Your task to perform on an android device: read, delete, or share a saved page in the chrome app Image 0: 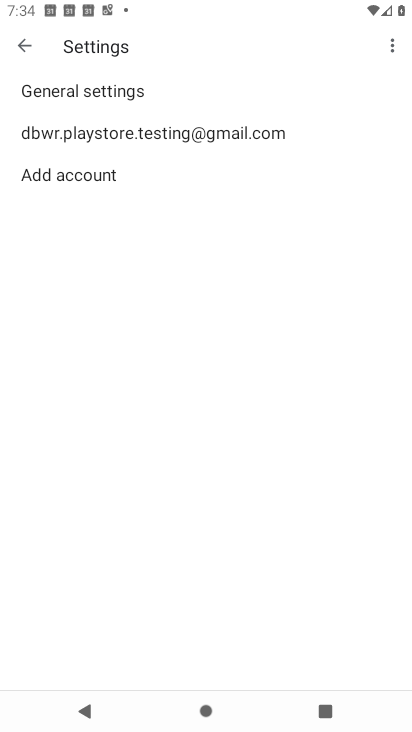
Step 0: press home button
Your task to perform on an android device: read, delete, or share a saved page in the chrome app Image 1: 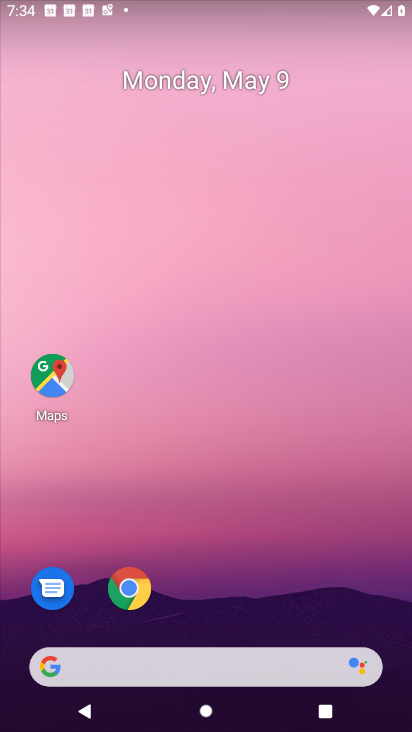
Step 1: click (121, 593)
Your task to perform on an android device: read, delete, or share a saved page in the chrome app Image 2: 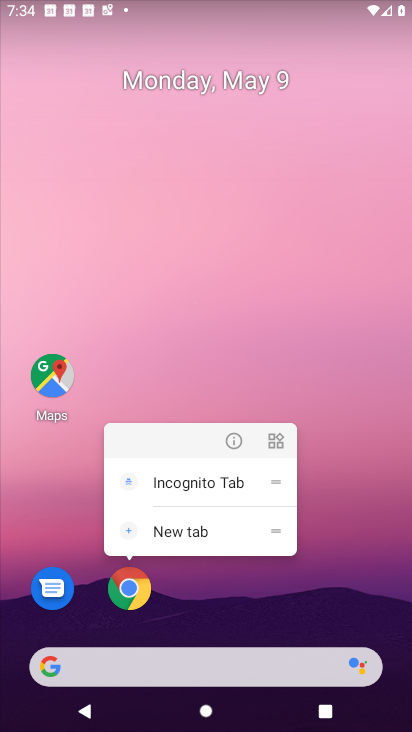
Step 2: click (126, 597)
Your task to perform on an android device: read, delete, or share a saved page in the chrome app Image 3: 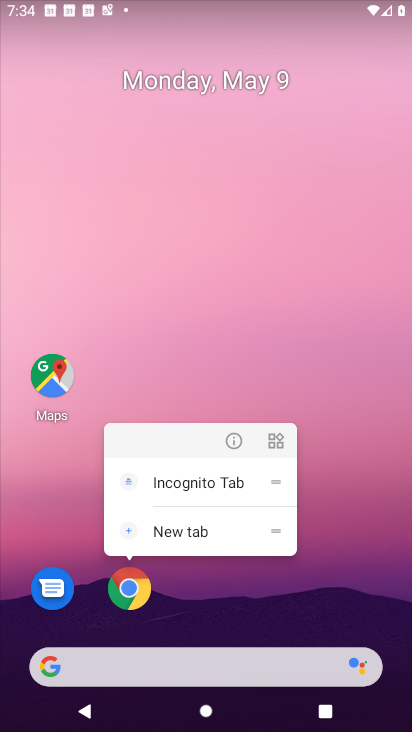
Step 3: click (135, 588)
Your task to perform on an android device: read, delete, or share a saved page in the chrome app Image 4: 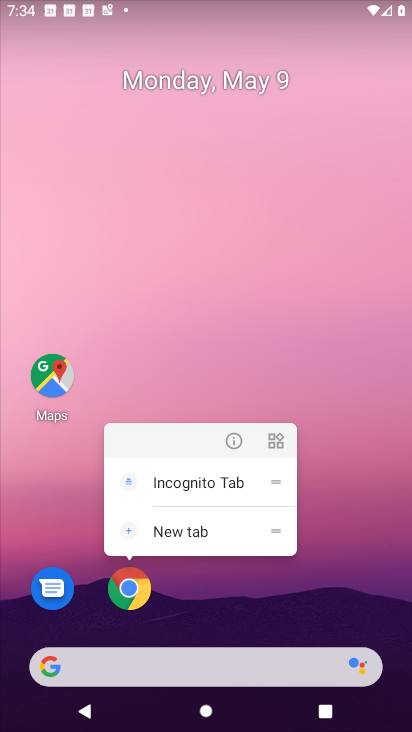
Step 4: click (126, 601)
Your task to perform on an android device: read, delete, or share a saved page in the chrome app Image 5: 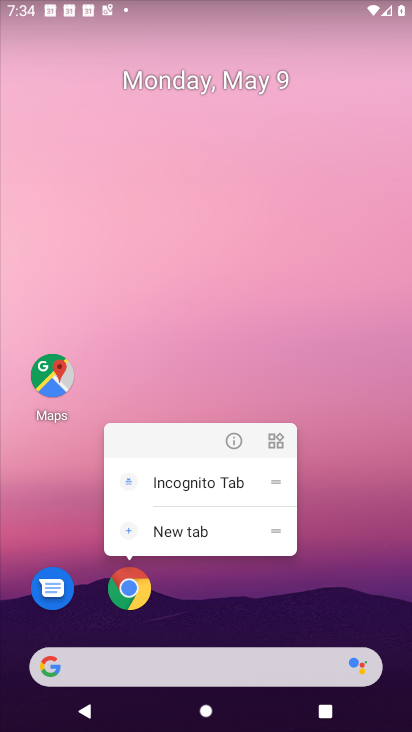
Step 5: click (138, 593)
Your task to perform on an android device: read, delete, or share a saved page in the chrome app Image 6: 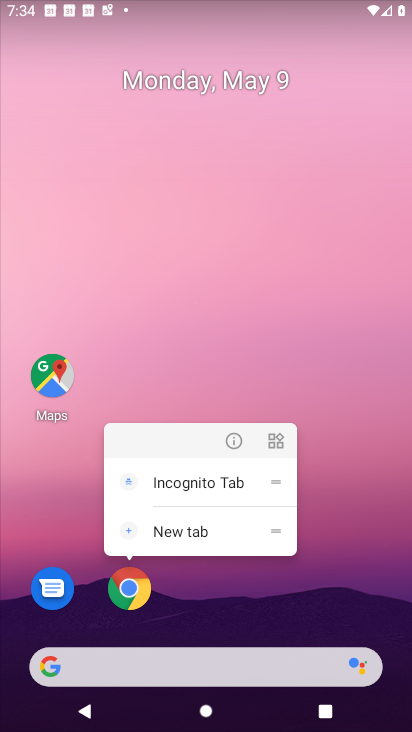
Step 6: click (127, 593)
Your task to perform on an android device: read, delete, or share a saved page in the chrome app Image 7: 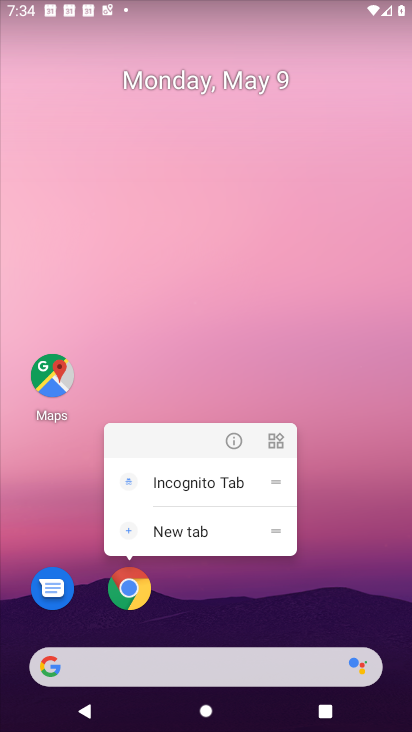
Step 7: click (126, 598)
Your task to perform on an android device: read, delete, or share a saved page in the chrome app Image 8: 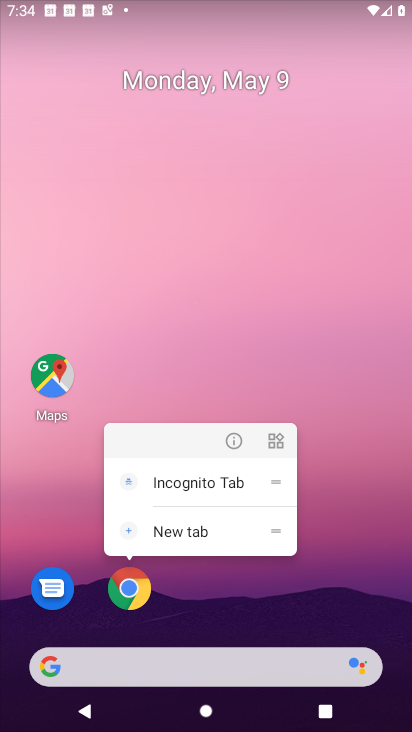
Step 8: click (134, 586)
Your task to perform on an android device: read, delete, or share a saved page in the chrome app Image 9: 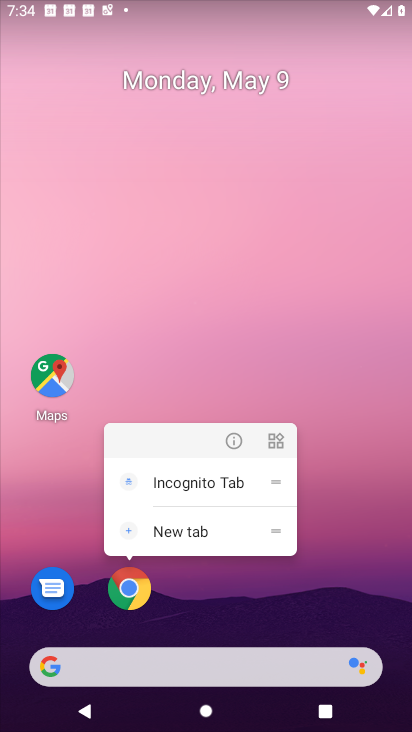
Step 9: click (128, 592)
Your task to perform on an android device: read, delete, or share a saved page in the chrome app Image 10: 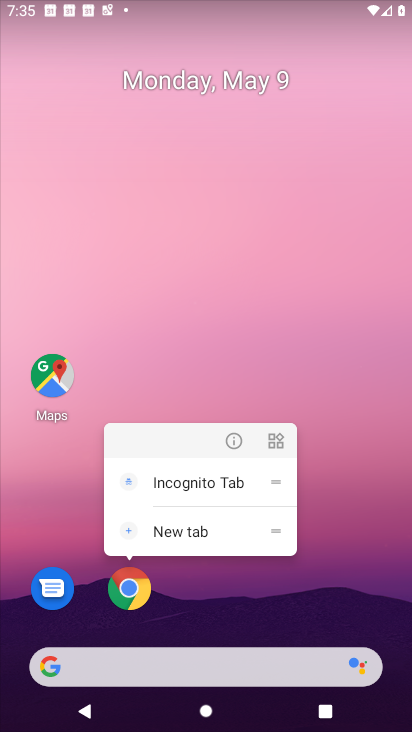
Step 10: click (128, 592)
Your task to perform on an android device: read, delete, or share a saved page in the chrome app Image 11: 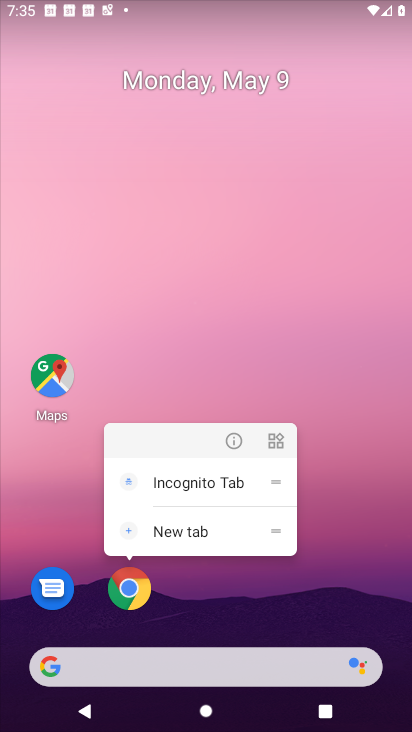
Step 11: click (130, 590)
Your task to perform on an android device: read, delete, or share a saved page in the chrome app Image 12: 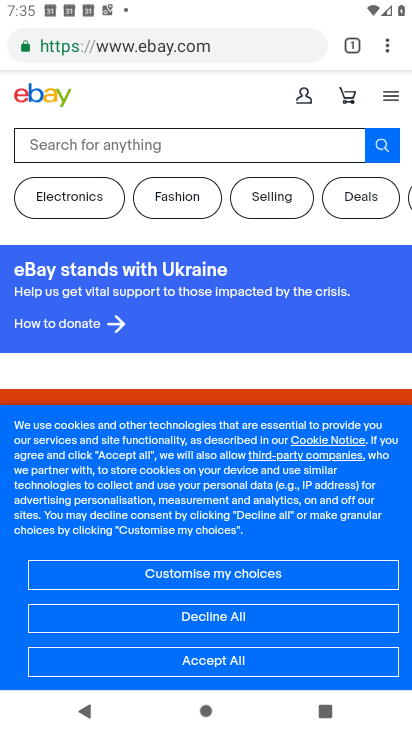
Step 12: drag from (387, 41) to (257, 292)
Your task to perform on an android device: read, delete, or share a saved page in the chrome app Image 13: 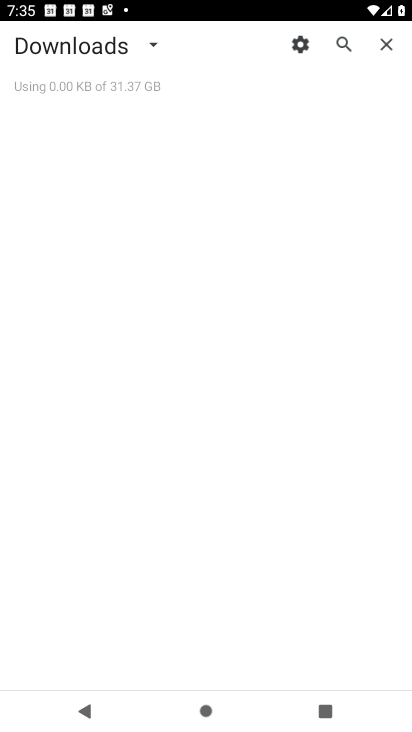
Step 13: click (141, 43)
Your task to perform on an android device: read, delete, or share a saved page in the chrome app Image 14: 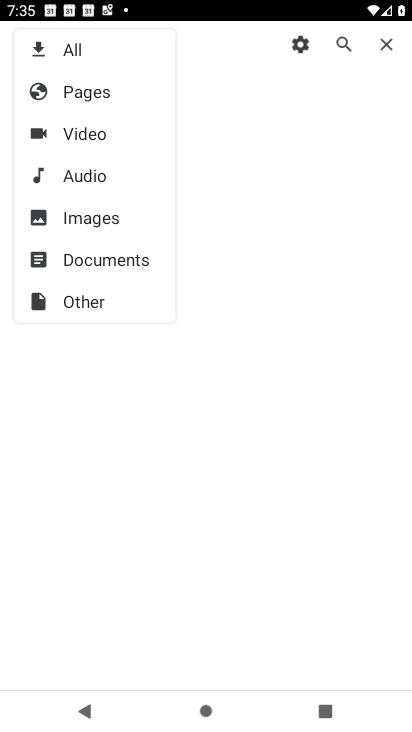
Step 14: click (92, 95)
Your task to perform on an android device: read, delete, or share a saved page in the chrome app Image 15: 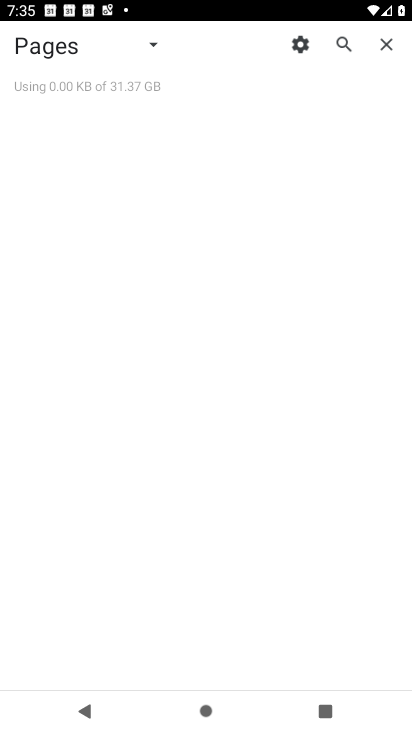
Step 15: task complete